Your task to perform on an android device: Open Google Maps Image 0: 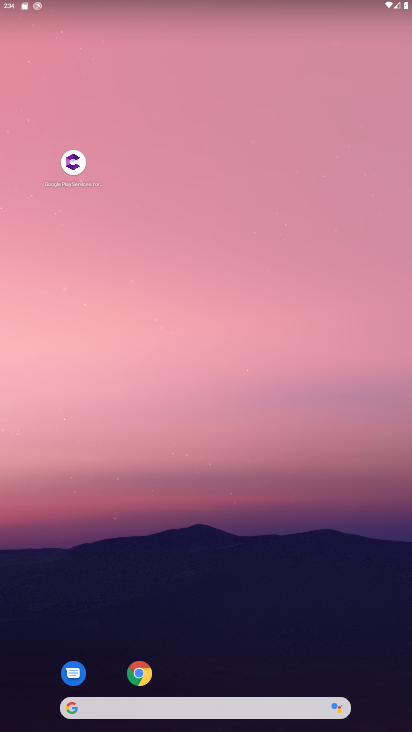
Step 0: drag from (197, 665) to (278, 185)
Your task to perform on an android device: Open Google Maps Image 1: 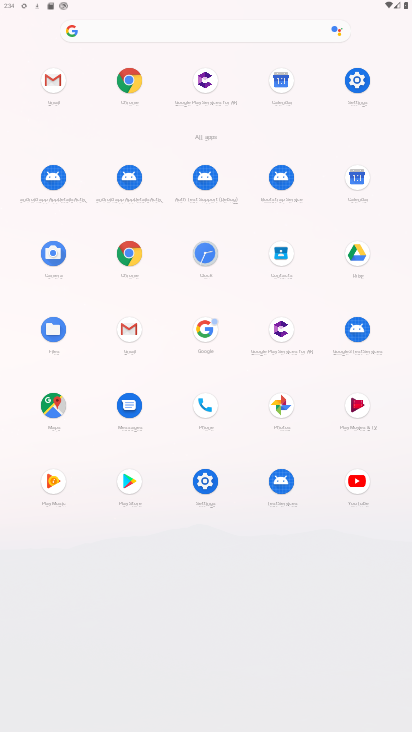
Step 1: click (51, 410)
Your task to perform on an android device: Open Google Maps Image 2: 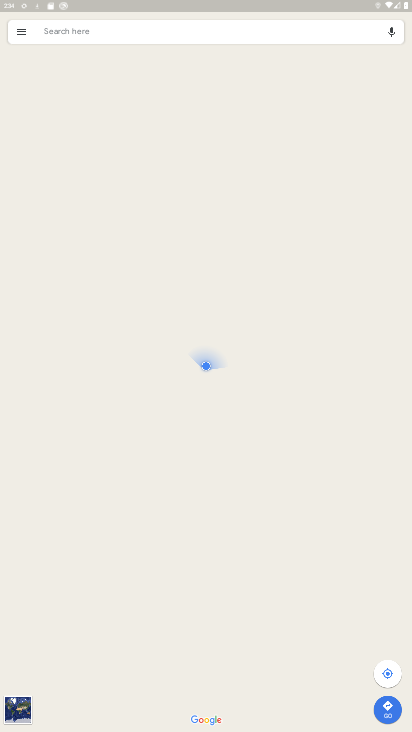
Step 2: task complete